Your task to perform on an android device: open wifi settings Image 0: 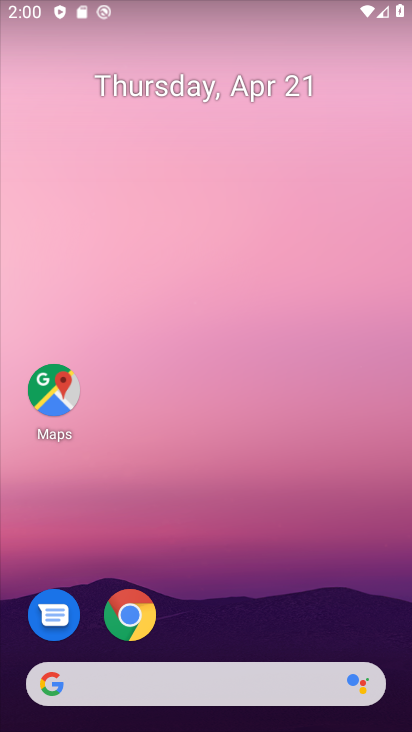
Step 0: drag from (236, 620) to (305, 27)
Your task to perform on an android device: open wifi settings Image 1: 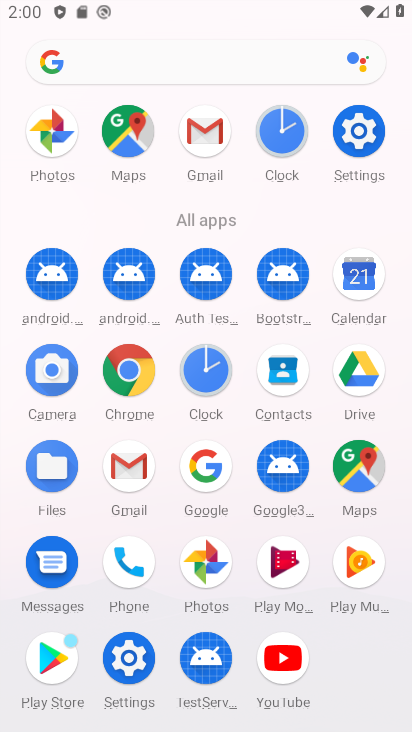
Step 1: click (355, 154)
Your task to perform on an android device: open wifi settings Image 2: 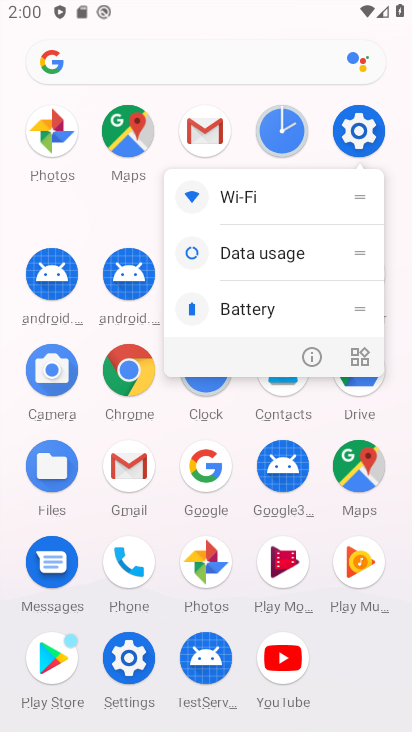
Step 2: click (252, 200)
Your task to perform on an android device: open wifi settings Image 3: 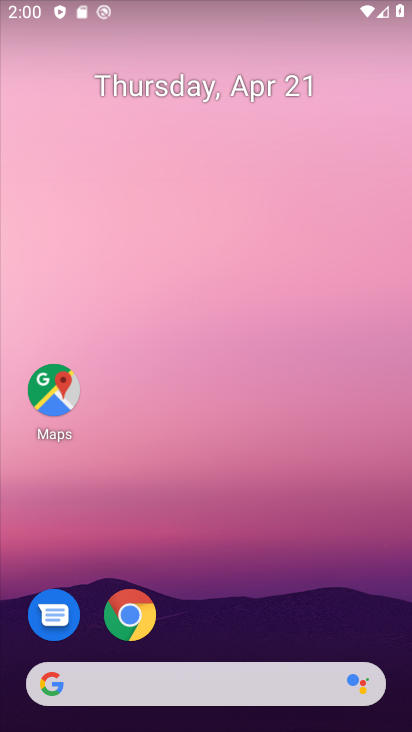
Step 3: drag from (229, 442) to (307, 89)
Your task to perform on an android device: open wifi settings Image 4: 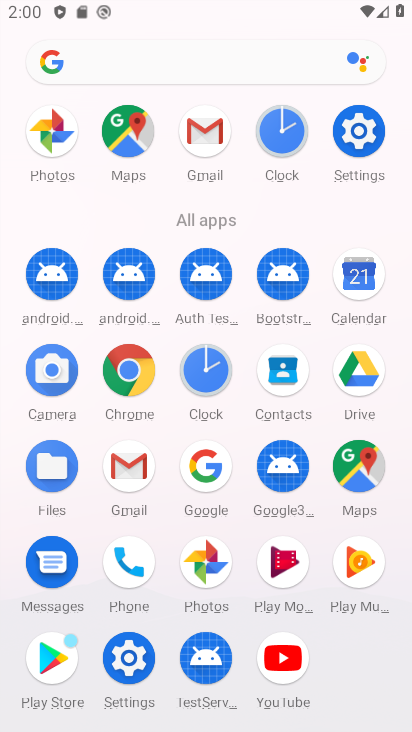
Step 4: click (341, 126)
Your task to perform on an android device: open wifi settings Image 5: 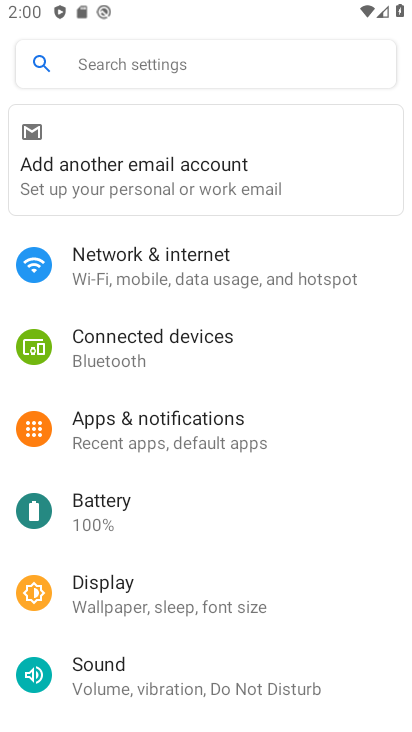
Step 5: click (151, 277)
Your task to perform on an android device: open wifi settings Image 6: 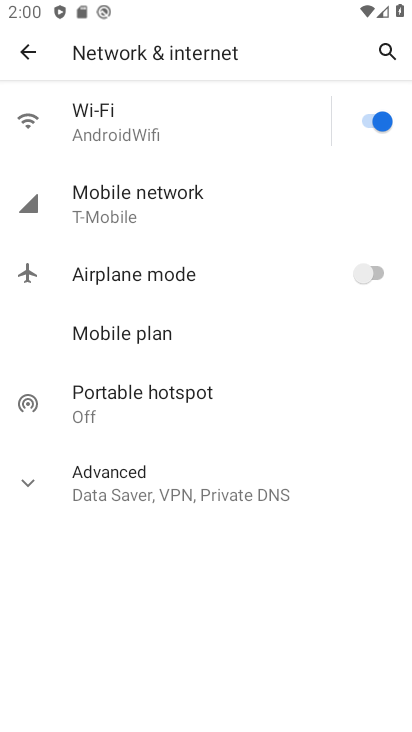
Step 6: click (141, 135)
Your task to perform on an android device: open wifi settings Image 7: 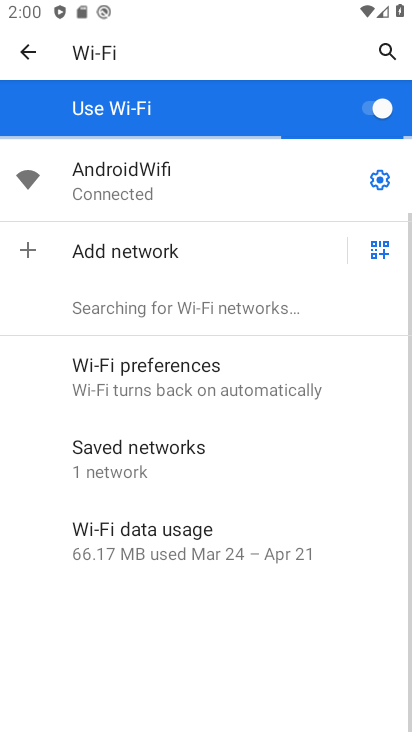
Step 7: task complete